Your task to perform on an android device: show emergency info Image 0: 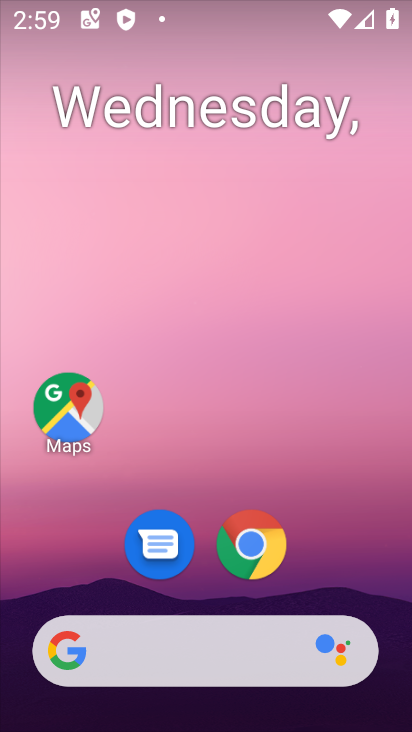
Step 0: drag from (367, 534) to (346, 198)
Your task to perform on an android device: show emergency info Image 1: 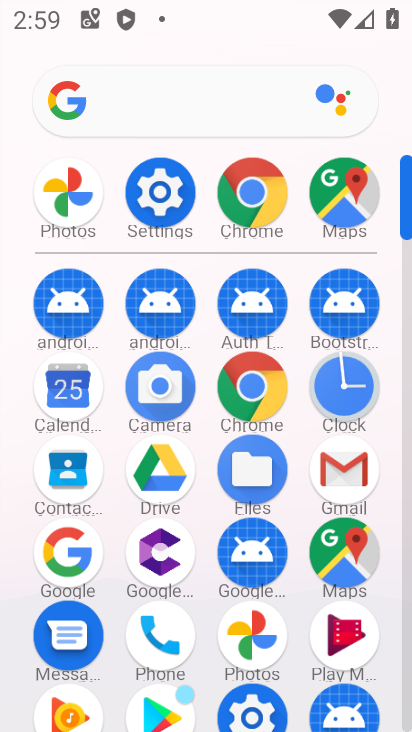
Step 1: click (149, 212)
Your task to perform on an android device: show emergency info Image 2: 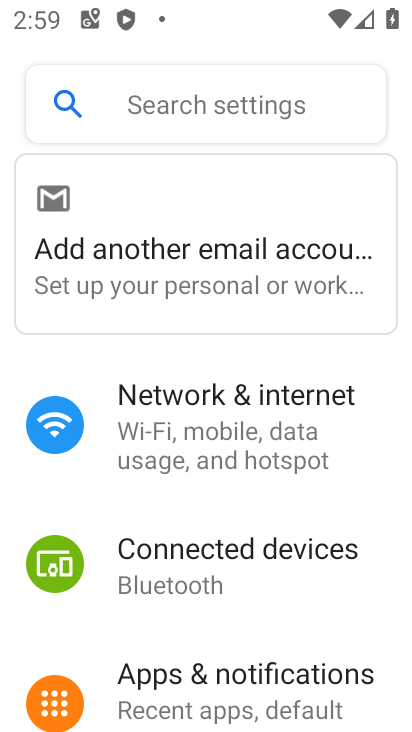
Step 2: drag from (255, 670) to (257, 264)
Your task to perform on an android device: show emergency info Image 3: 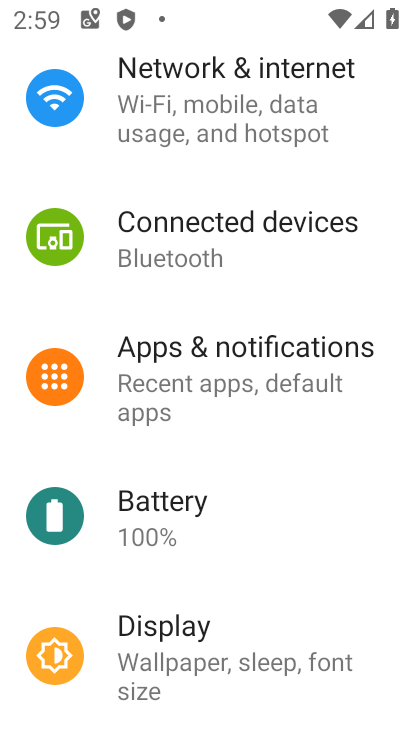
Step 3: drag from (253, 611) to (257, 281)
Your task to perform on an android device: show emergency info Image 4: 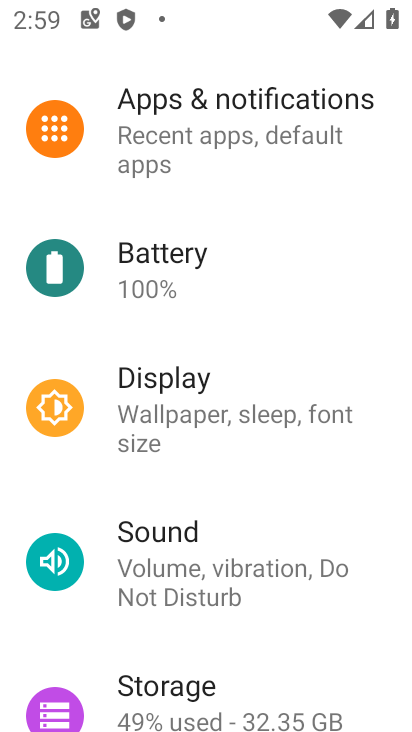
Step 4: drag from (236, 652) to (252, 248)
Your task to perform on an android device: show emergency info Image 5: 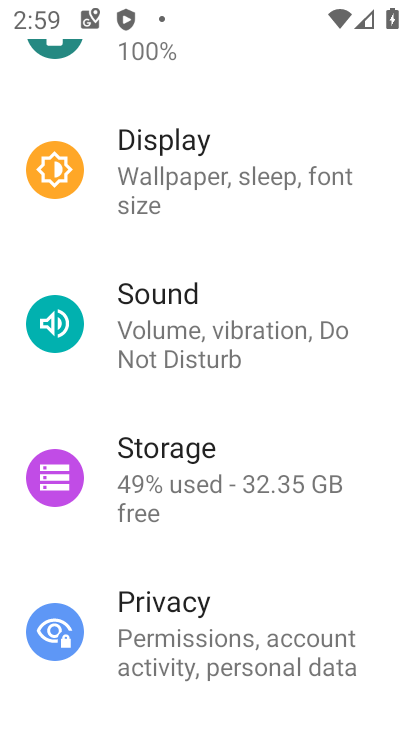
Step 5: drag from (257, 660) to (260, 211)
Your task to perform on an android device: show emergency info Image 6: 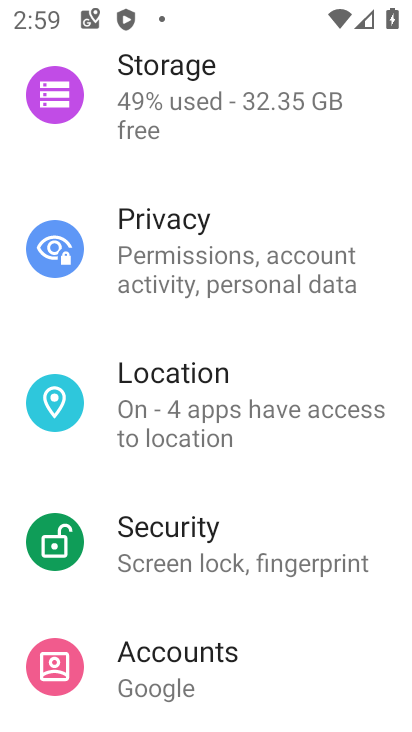
Step 6: drag from (251, 643) to (282, 169)
Your task to perform on an android device: show emergency info Image 7: 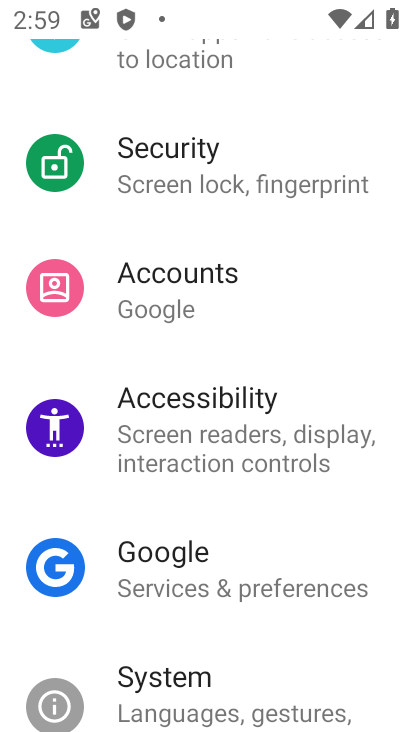
Step 7: drag from (293, 555) to (319, 166)
Your task to perform on an android device: show emergency info Image 8: 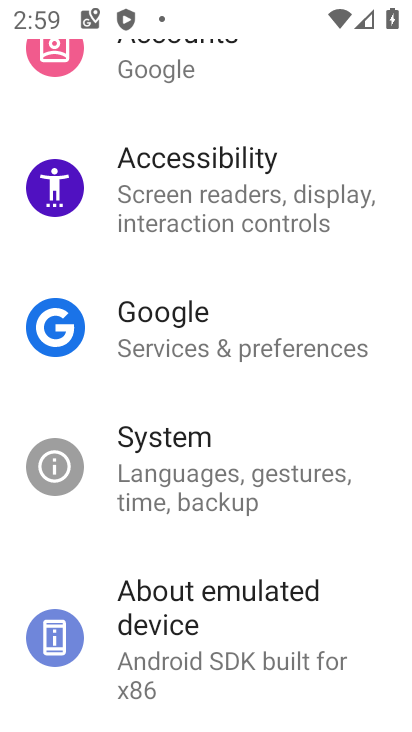
Step 8: drag from (277, 538) to (292, 173)
Your task to perform on an android device: show emergency info Image 9: 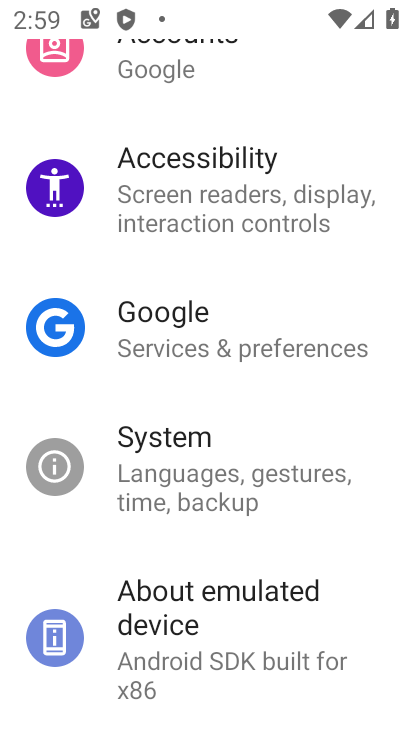
Step 9: click (260, 646)
Your task to perform on an android device: show emergency info Image 10: 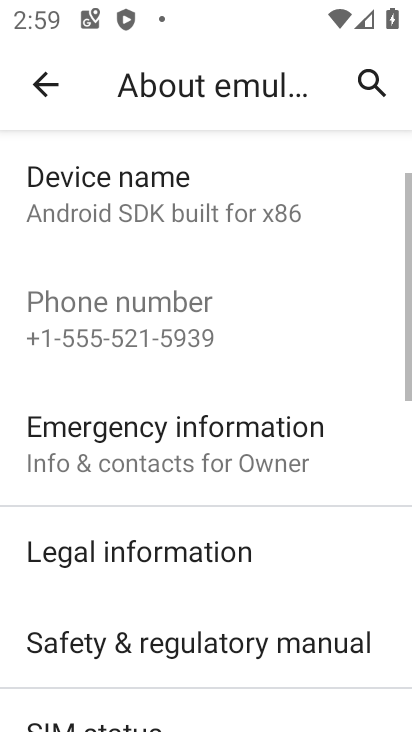
Step 10: click (212, 425)
Your task to perform on an android device: show emergency info Image 11: 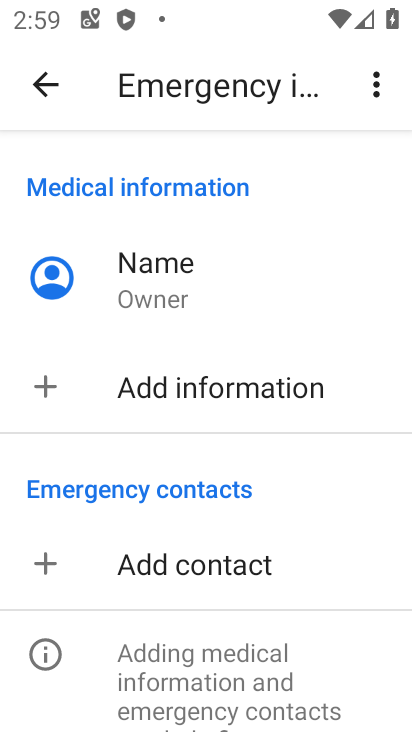
Step 11: task complete